Your task to perform on an android device: turn on javascript in the chrome app Image 0: 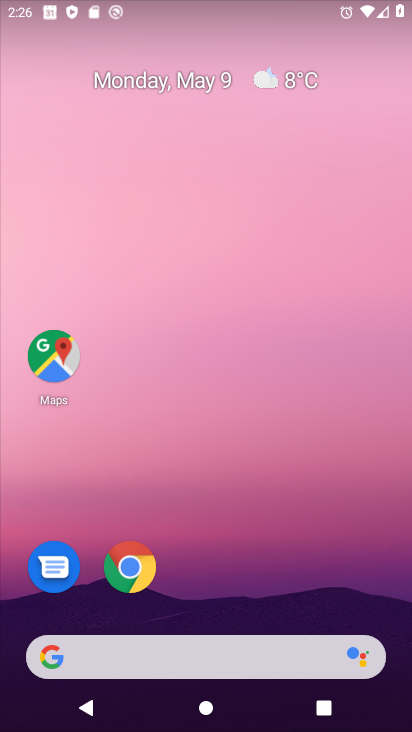
Step 0: drag from (224, 607) to (259, 353)
Your task to perform on an android device: turn on javascript in the chrome app Image 1: 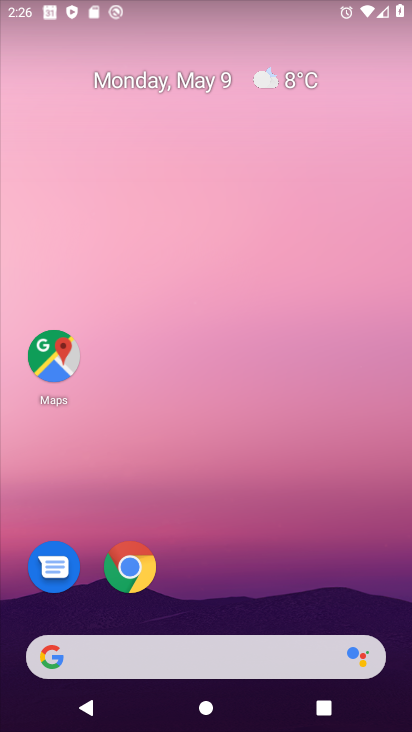
Step 1: click (291, 273)
Your task to perform on an android device: turn on javascript in the chrome app Image 2: 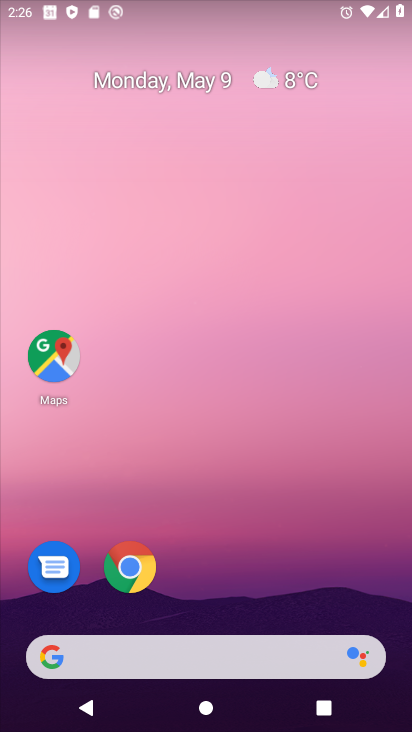
Step 2: drag from (253, 571) to (289, 287)
Your task to perform on an android device: turn on javascript in the chrome app Image 3: 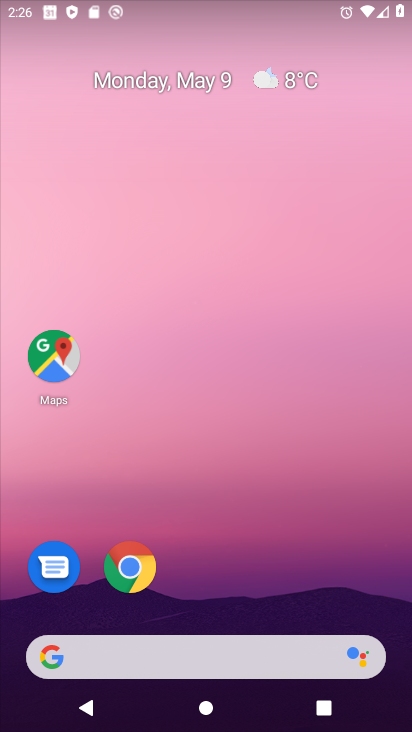
Step 3: drag from (270, 630) to (263, 282)
Your task to perform on an android device: turn on javascript in the chrome app Image 4: 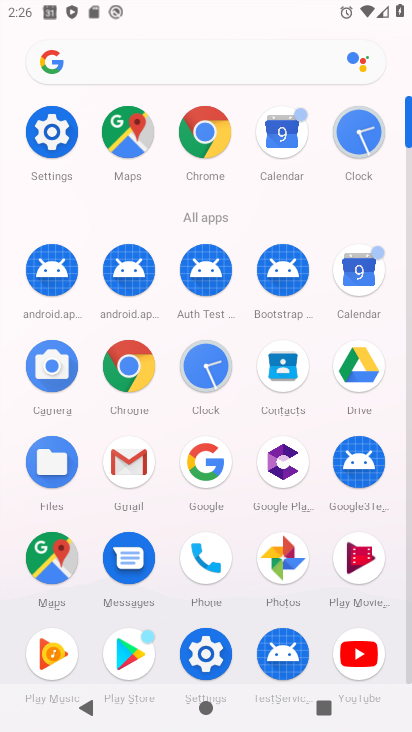
Step 4: click (198, 126)
Your task to perform on an android device: turn on javascript in the chrome app Image 5: 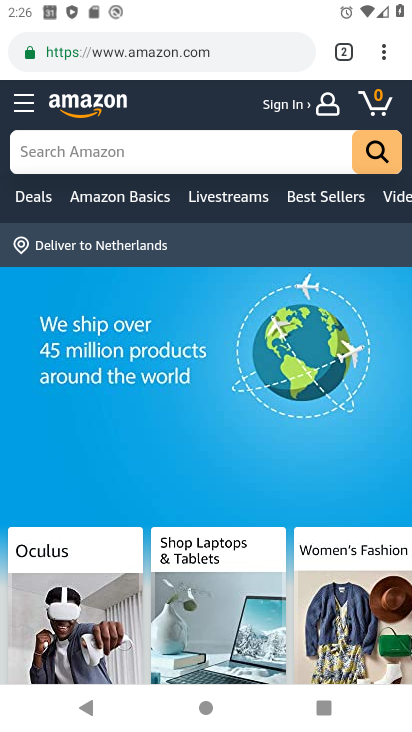
Step 5: click (373, 64)
Your task to perform on an android device: turn on javascript in the chrome app Image 6: 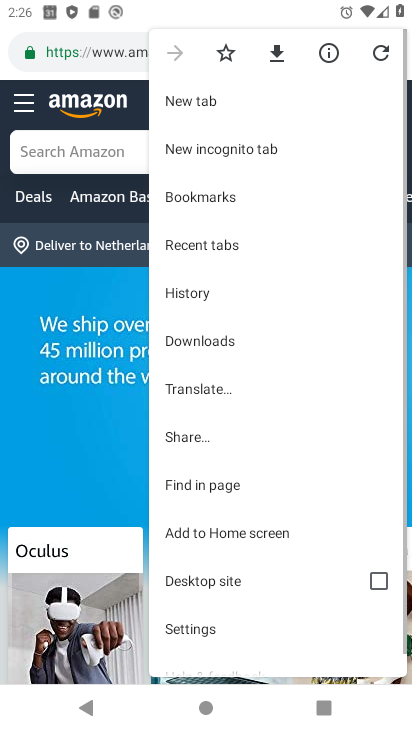
Step 6: drag from (224, 587) to (285, 261)
Your task to perform on an android device: turn on javascript in the chrome app Image 7: 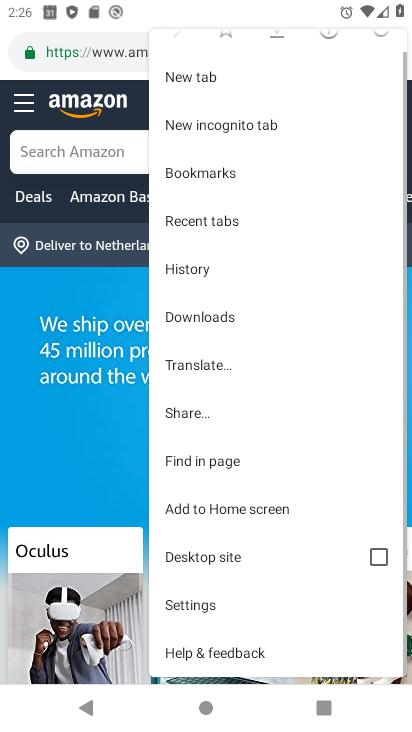
Step 7: click (185, 600)
Your task to perform on an android device: turn on javascript in the chrome app Image 8: 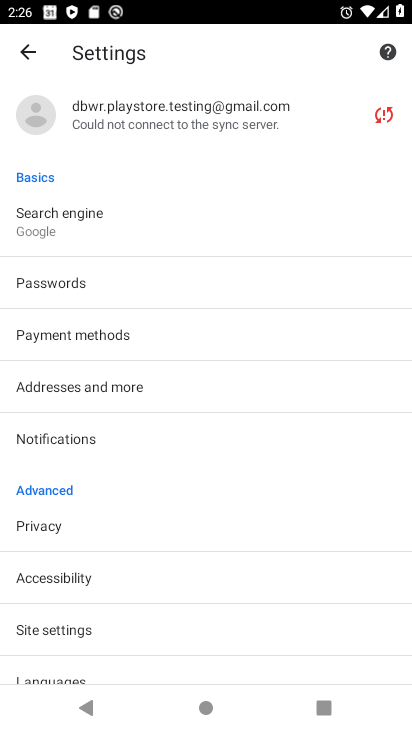
Step 8: drag from (195, 650) to (209, 351)
Your task to perform on an android device: turn on javascript in the chrome app Image 9: 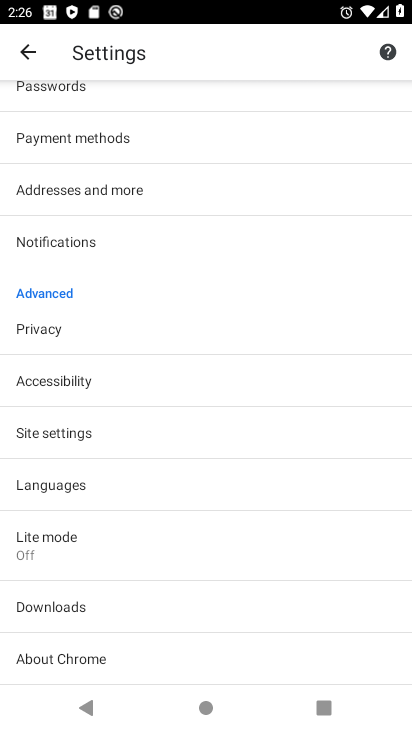
Step 9: click (67, 441)
Your task to perform on an android device: turn on javascript in the chrome app Image 10: 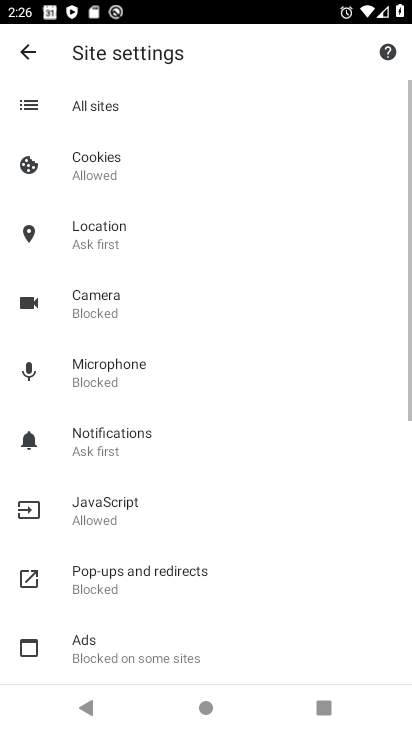
Step 10: click (161, 513)
Your task to perform on an android device: turn on javascript in the chrome app Image 11: 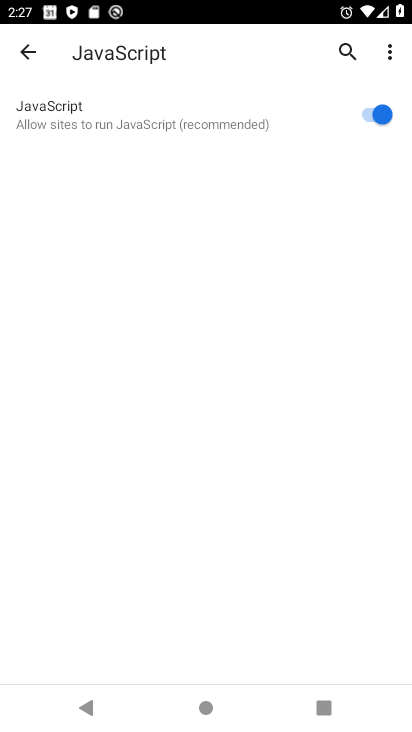
Step 11: task complete